Your task to perform on an android device: change the clock display to digital Image 0: 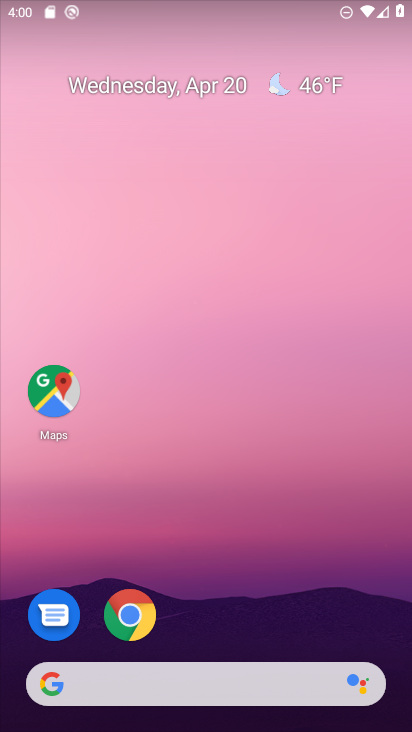
Step 0: drag from (209, 421) to (273, 113)
Your task to perform on an android device: change the clock display to digital Image 1: 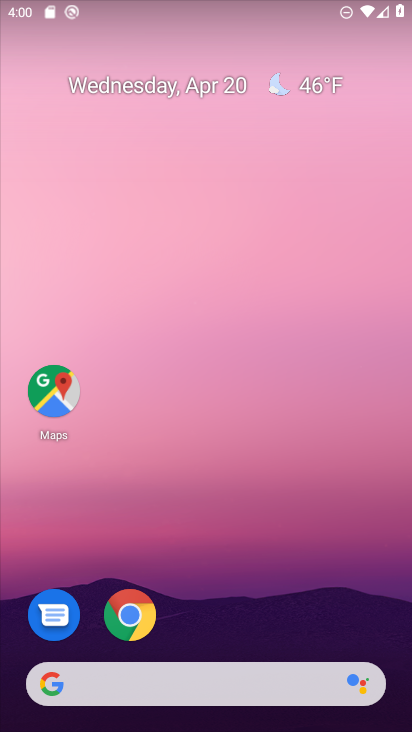
Step 1: drag from (234, 509) to (242, 149)
Your task to perform on an android device: change the clock display to digital Image 2: 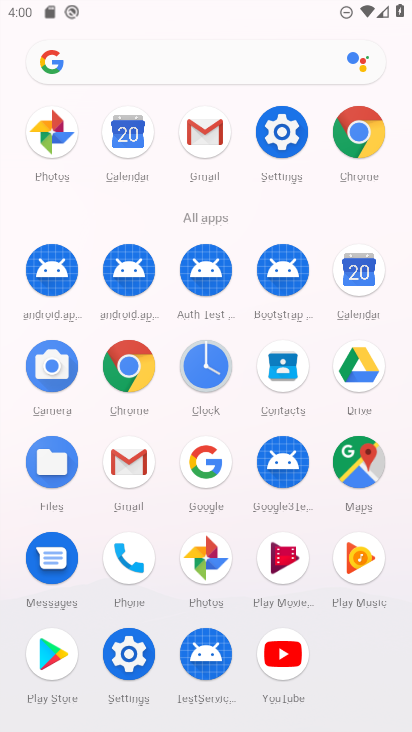
Step 2: click (206, 356)
Your task to perform on an android device: change the clock display to digital Image 3: 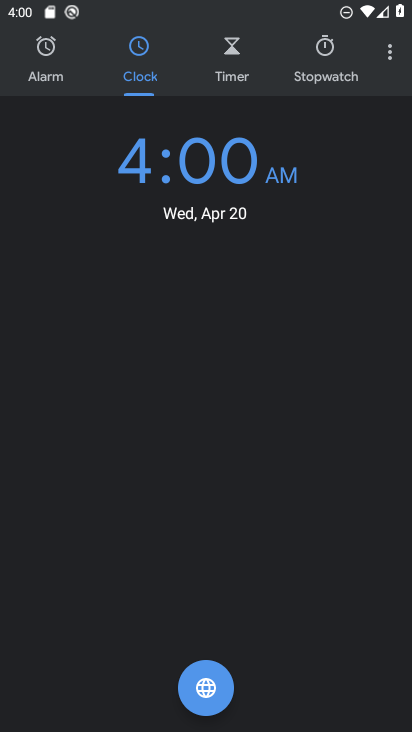
Step 3: click (391, 56)
Your task to perform on an android device: change the clock display to digital Image 4: 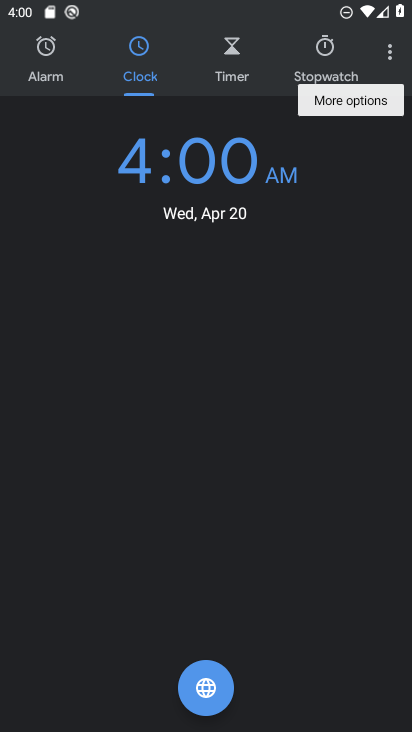
Step 4: click (388, 46)
Your task to perform on an android device: change the clock display to digital Image 5: 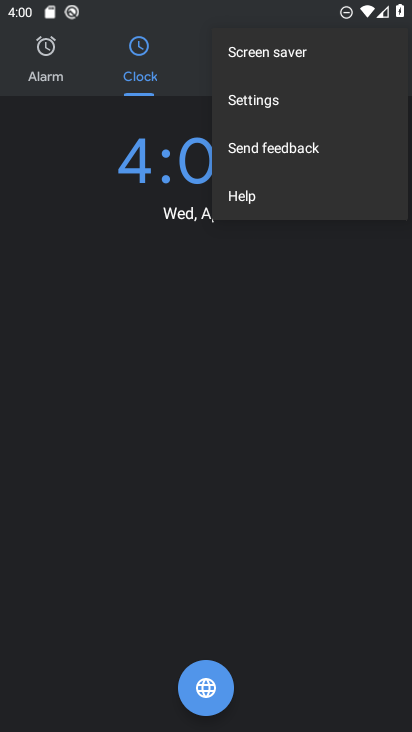
Step 5: click (260, 103)
Your task to perform on an android device: change the clock display to digital Image 6: 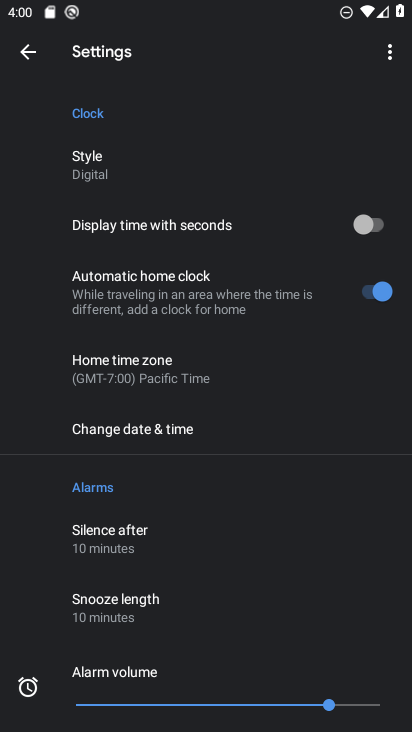
Step 6: click (90, 161)
Your task to perform on an android device: change the clock display to digital Image 7: 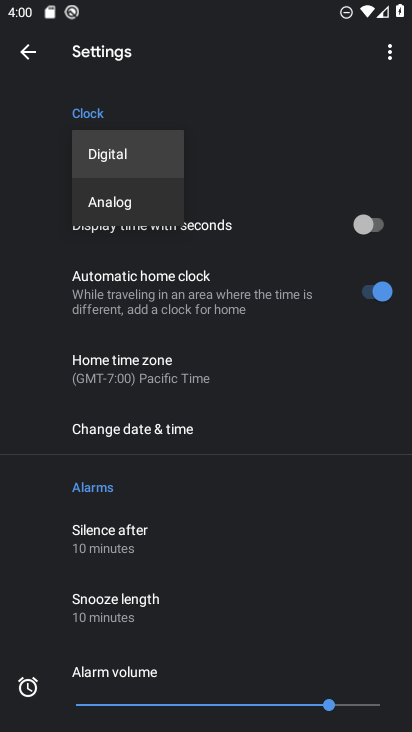
Step 7: task complete